Your task to perform on an android device: What is the news today? Image 0: 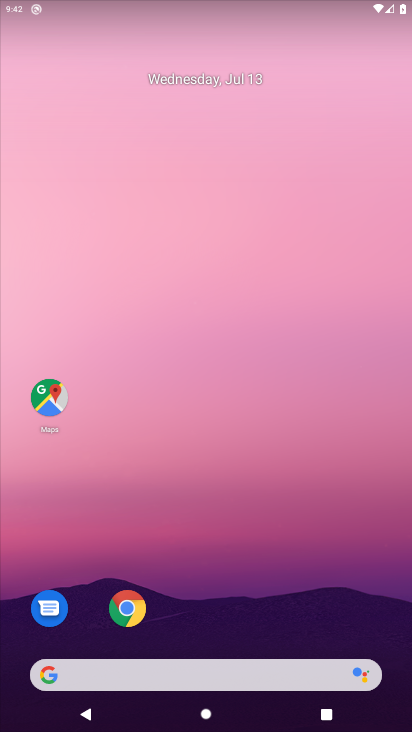
Step 0: click (113, 676)
Your task to perform on an android device: What is the news today? Image 1: 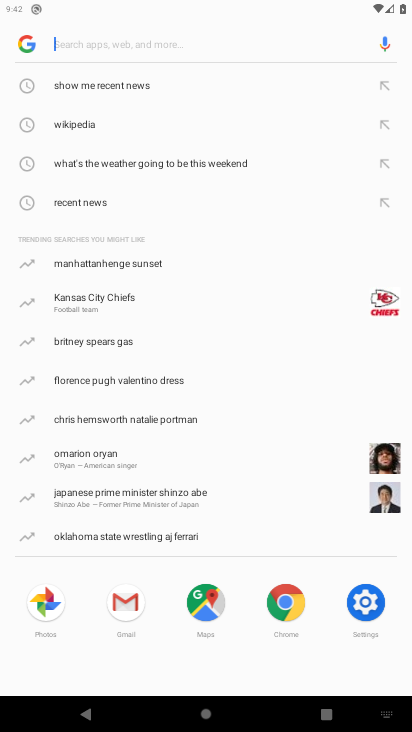
Step 1: click (88, 42)
Your task to perform on an android device: What is the news today? Image 2: 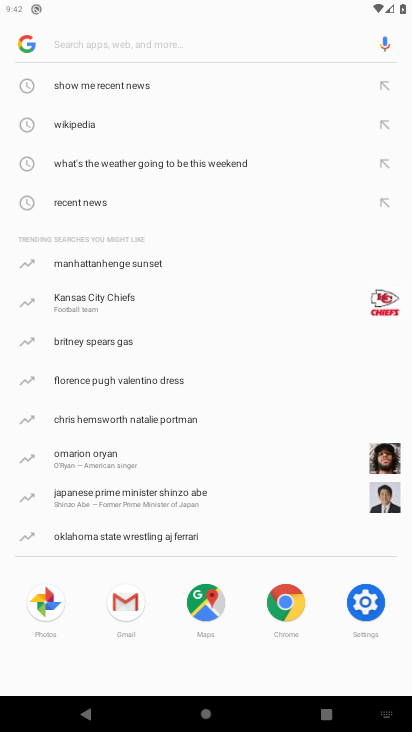
Step 2: type "What is the news today?"
Your task to perform on an android device: What is the news today? Image 3: 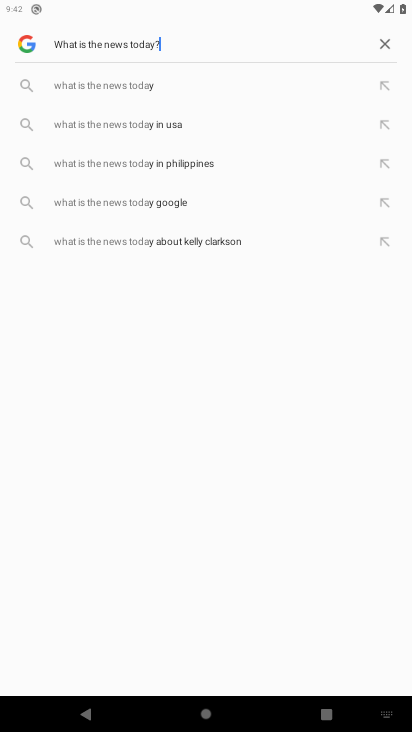
Step 3: type ""
Your task to perform on an android device: What is the news today? Image 4: 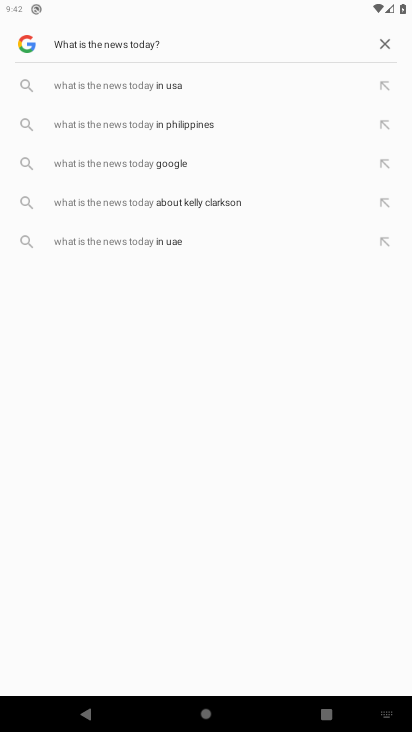
Step 4: type ""
Your task to perform on an android device: What is the news today? Image 5: 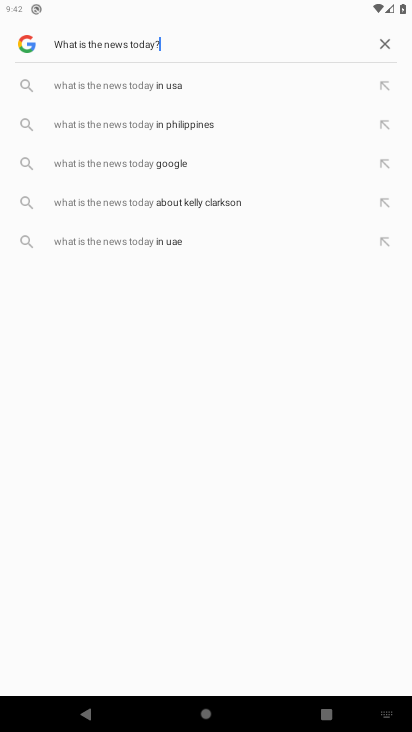
Step 5: type ""
Your task to perform on an android device: What is the news today? Image 6: 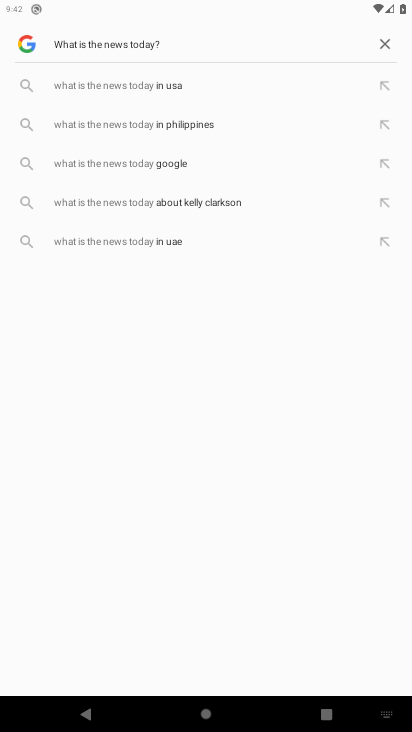
Step 6: task complete